Your task to perform on an android device: change notifications settings Image 0: 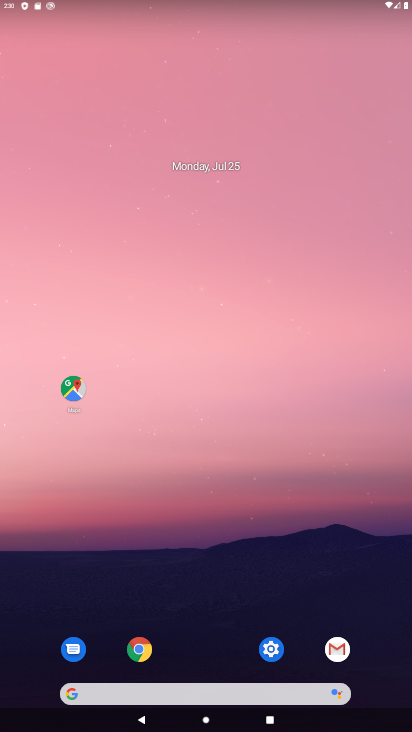
Step 0: click (276, 655)
Your task to perform on an android device: change notifications settings Image 1: 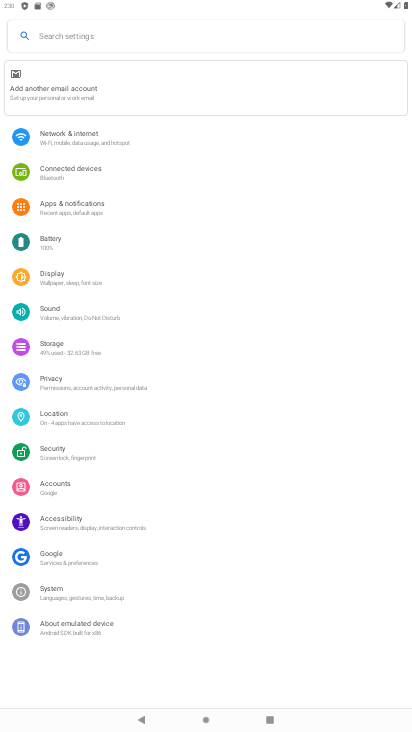
Step 1: click (88, 24)
Your task to perform on an android device: change notifications settings Image 2: 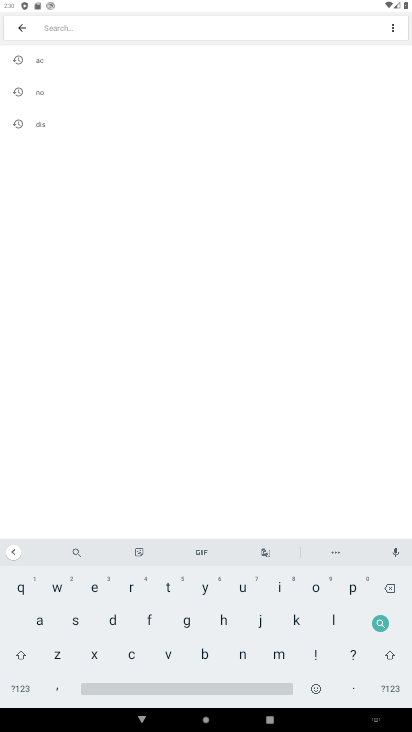
Step 2: click (238, 650)
Your task to perform on an android device: change notifications settings Image 3: 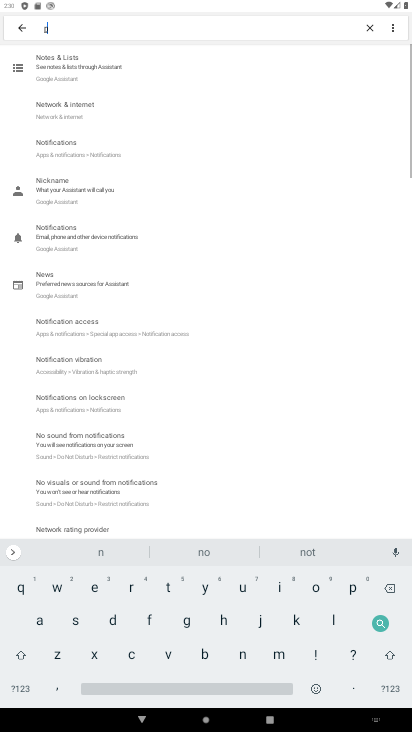
Step 3: click (315, 585)
Your task to perform on an android device: change notifications settings Image 4: 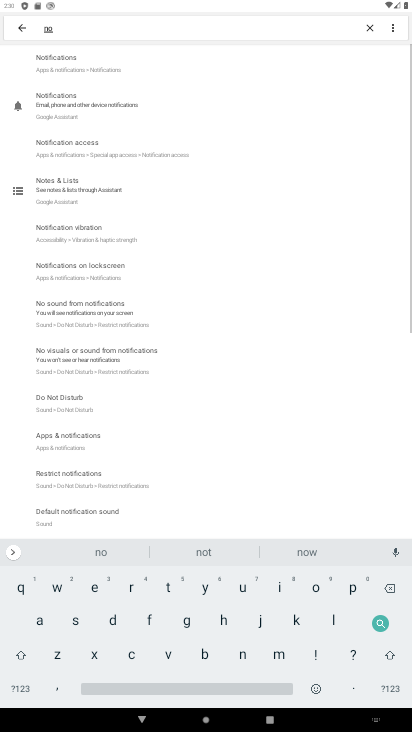
Step 4: click (116, 72)
Your task to perform on an android device: change notifications settings Image 5: 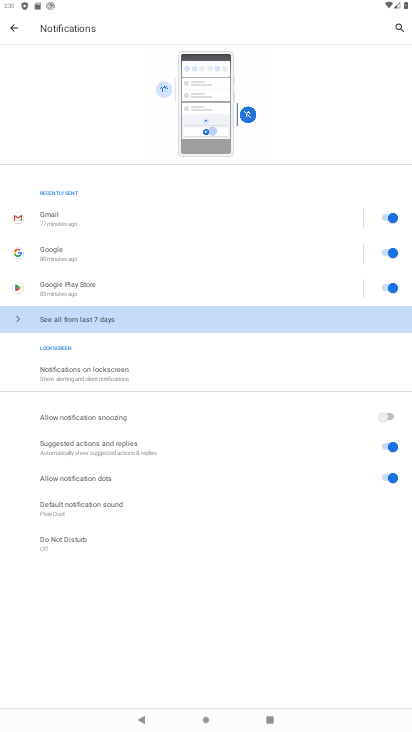
Step 5: click (57, 360)
Your task to perform on an android device: change notifications settings Image 6: 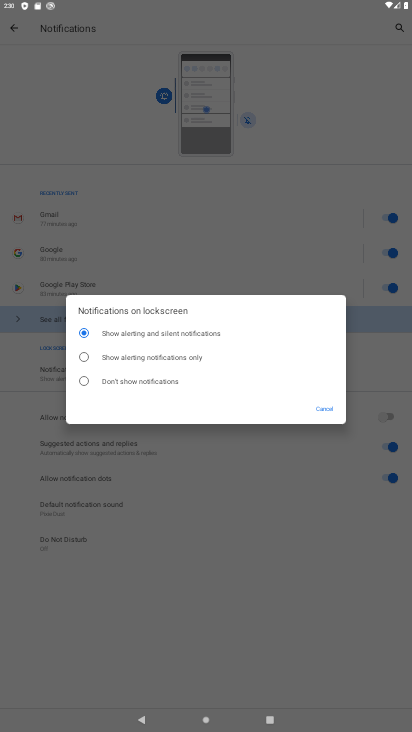
Step 6: task complete